Your task to perform on an android device: check storage Image 0: 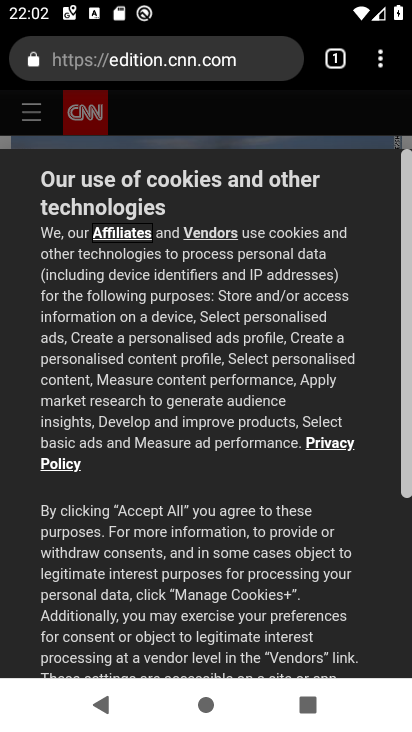
Step 0: press home button
Your task to perform on an android device: check storage Image 1: 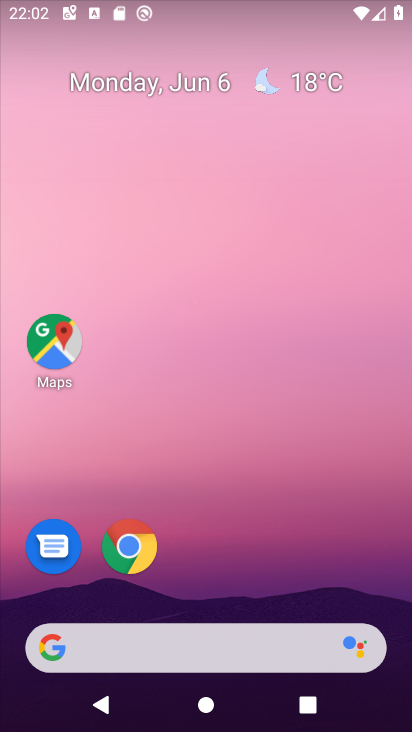
Step 1: drag from (402, 598) to (335, 190)
Your task to perform on an android device: check storage Image 2: 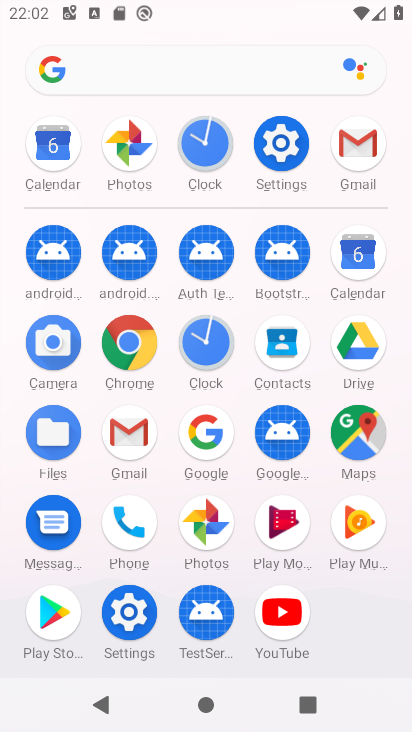
Step 2: click (129, 611)
Your task to perform on an android device: check storage Image 3: 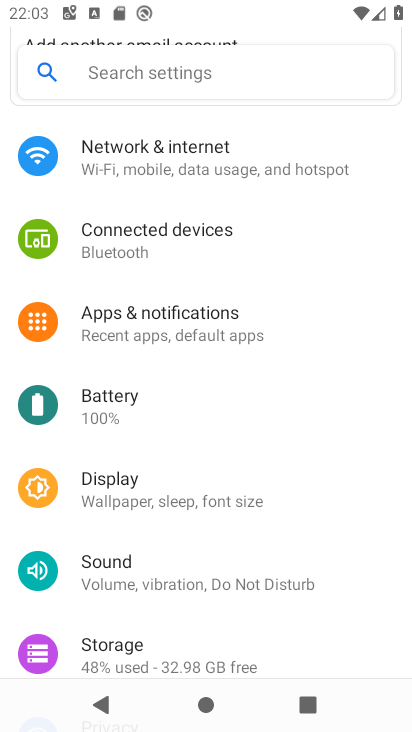
Step 3: drag from (340, 618) to (308, 323)
Your task to perform on an android device: check storage Image 4: 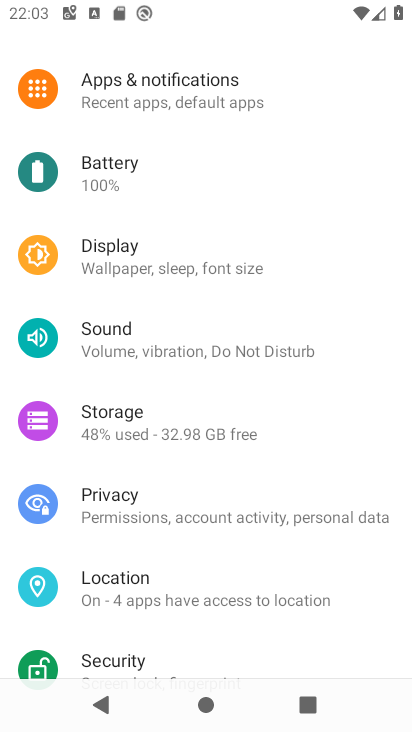
Step 4: click (123, 411)
Your task to perform on an android device: check storage Image 5: 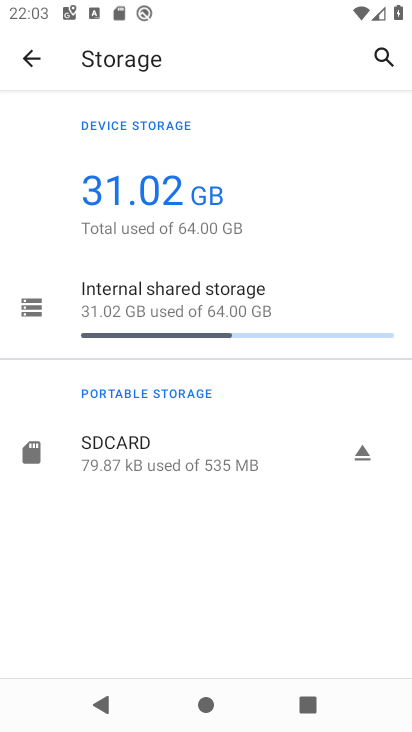
Step 5: task complete